Your task to perform on an android device: Open calendar and show me the fourth week of next month Image 0: 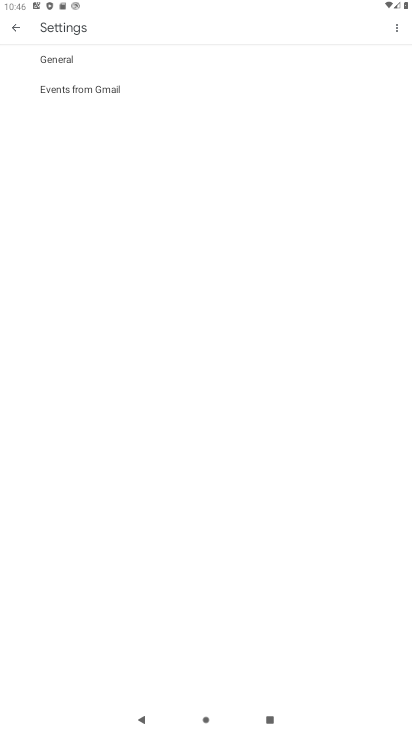
Step 0: press home button
Your task to perform on an android device: Open calendar and show me the fourth week of next month Image 1: 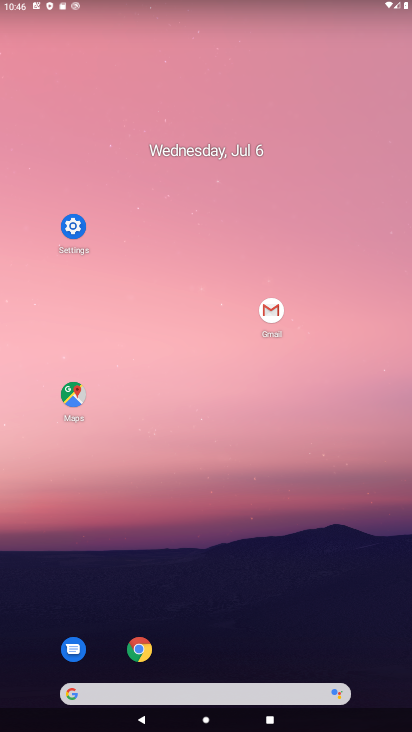
Step 1: drag from (285, 601) to (297, 48)
Your task to perform on an android device: Open calendar and show me the fourth week of next month Image 2: 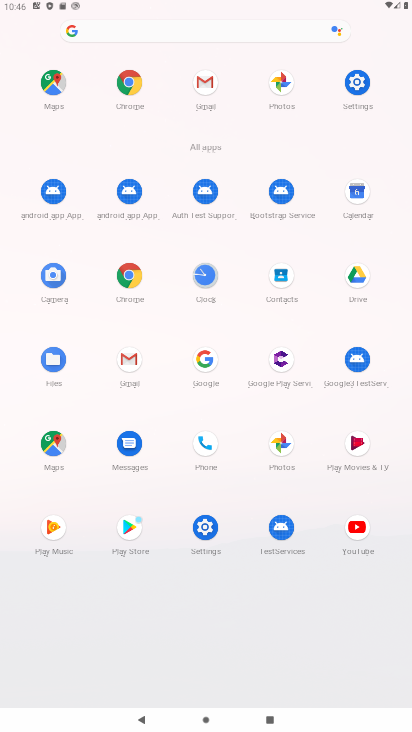
Step 2: drag from (361, 192) to (110, 270)
Your task to perform on an android device: Open calendar and show me the fourth week of next month Image 3: 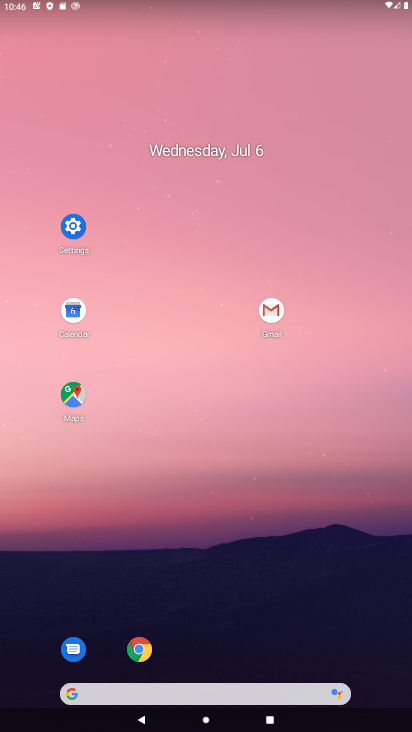
Step 3: click (76, 309)
Your task to perform on an android device: Open calendar and show me the fourth week of next month Image 4: 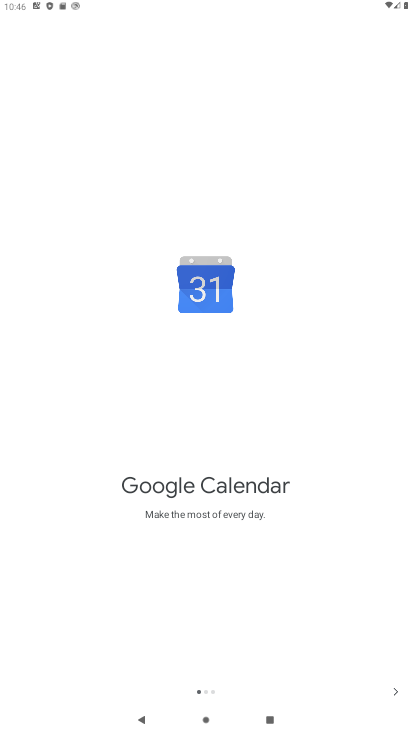
Step 4: click (389, 689)
Your task to perform on an android device: Open calendar and show me the fourth week of next month Image 5: 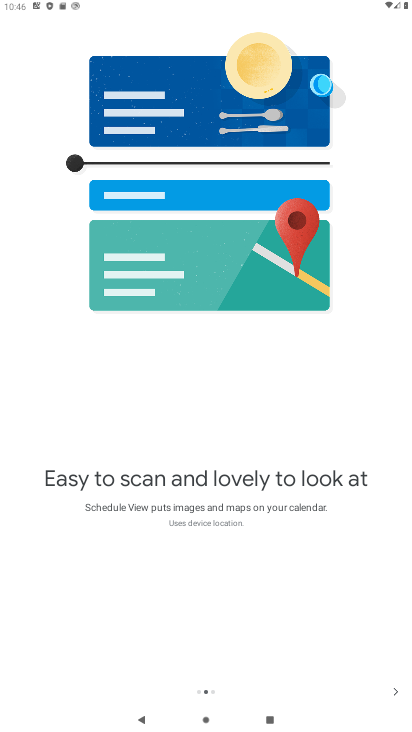
Step 5: click (389, 689)
Your task to perform on an android device: Open calendar and show me the fourth week of next month Image 6: 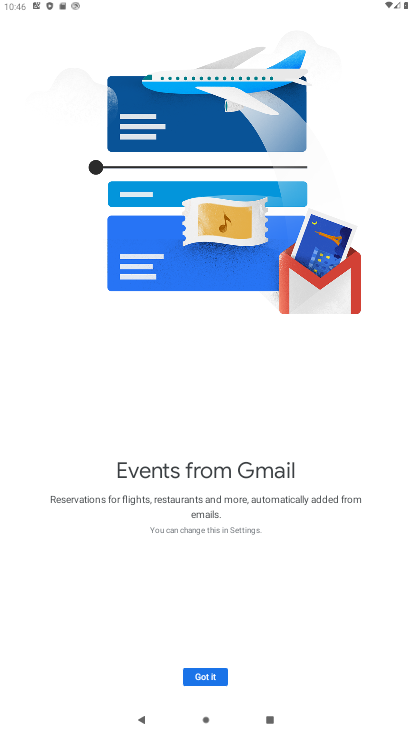
Step 6: click (226, 671)
Your task to perform on an android device: Open calendar and show me the fourth week of next month Image 7: 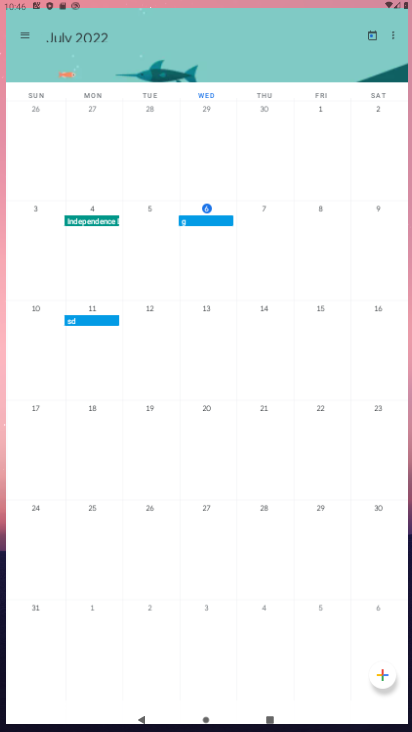
Step 7: click (212, 676)
Your task to perform on an android device: Open calendar and show me the fourth week of next month Image 8: 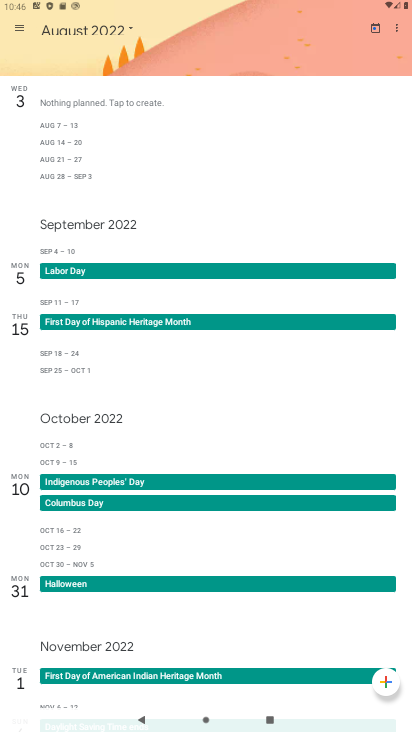
Step 8: drag from (192, 525) to (187, 98)
Your task to perform on an android device: Open calendar and show me the fourth week of next month Image 9: 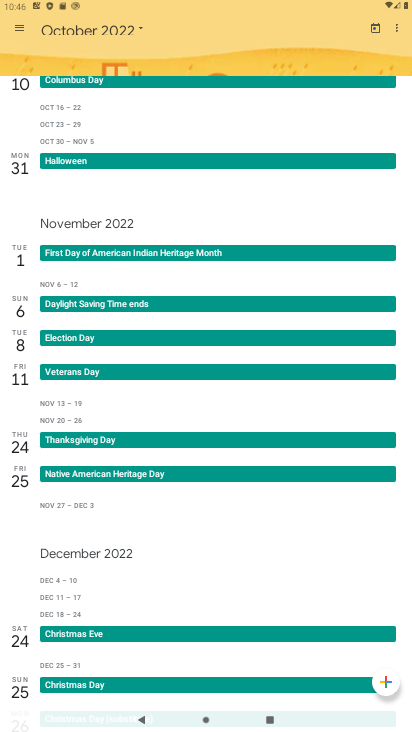
Step 9: drag from (187, 95) to (233, 612)
Your task to perform on an android device: Open calendar and show me the fourth week of next month Image 10: 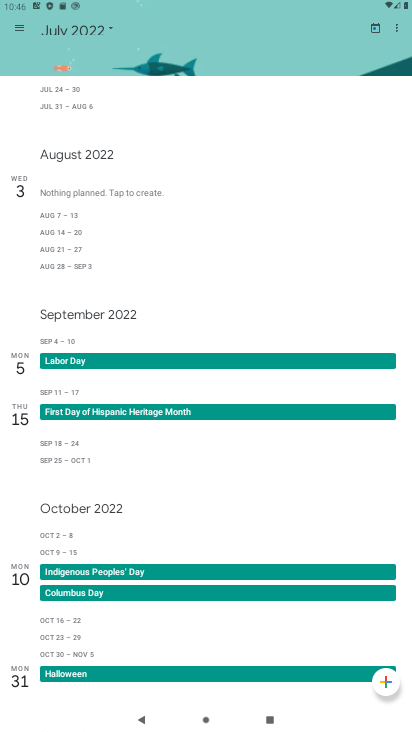
Step 10: drag from (129, 395) to (141, 87)
Your task to perform on an android device: Open calendar and show me the fourth week of next month Image 11: 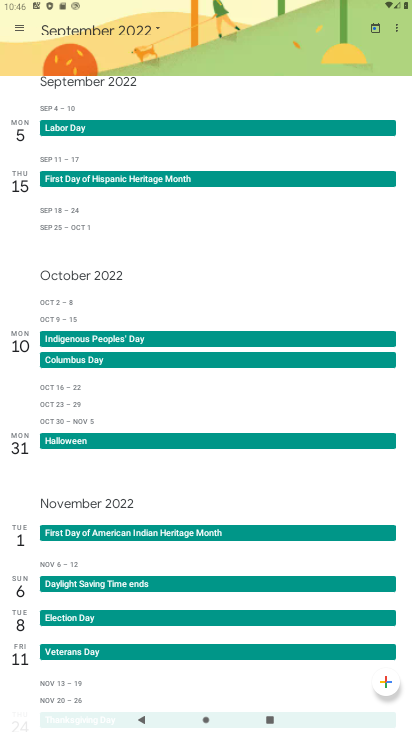
Step 11: drag from (76, 142) to (105, 354)
Your task to perform on an android device: Open calendar and show me the fourth week of next month Image 12: 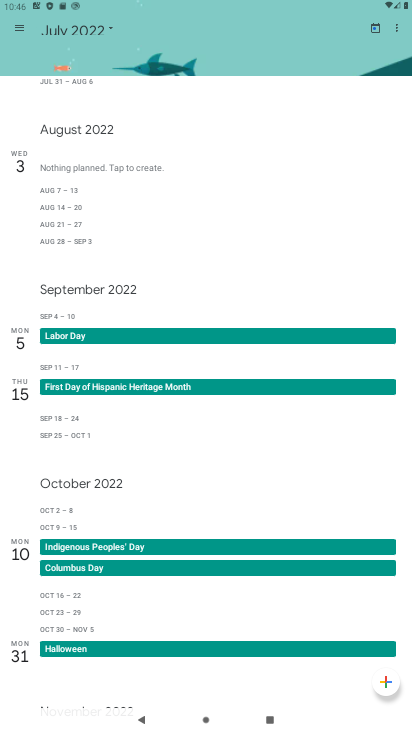
Step 12: drag from (94, 250) to (84, 190)
Your task to perform on an android device: Open calendar and show me the fourth week of next month Image 13: 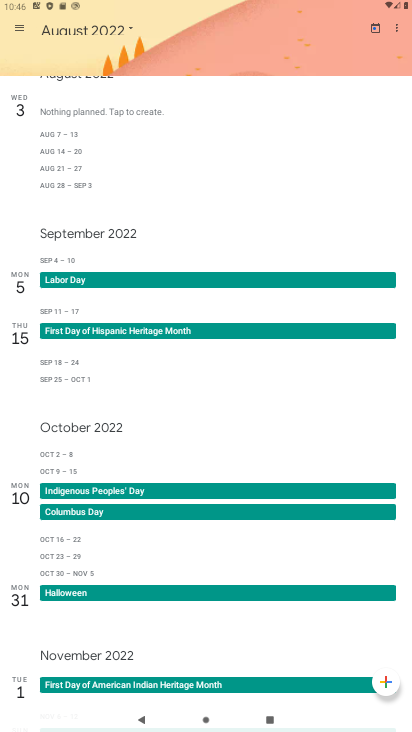
Step 13: click (87, 186)
Your task to perform on an android device: Open calendar and show me the fourth week of next month Image 14: 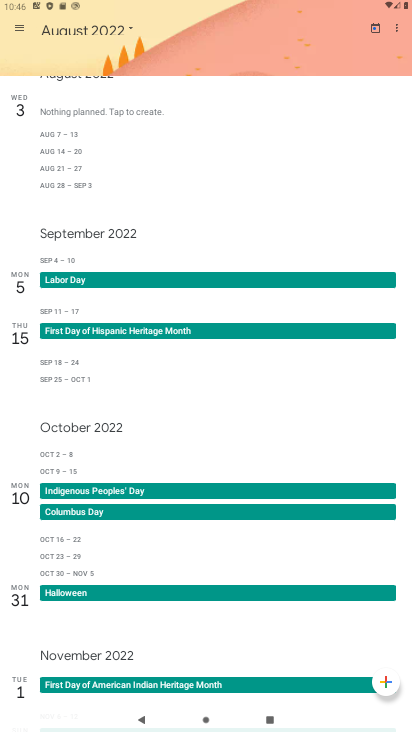
Step 14: click (80, 184)
Your task to perform on an android device: Open calendar and show me the fourth week of next month Image 15: 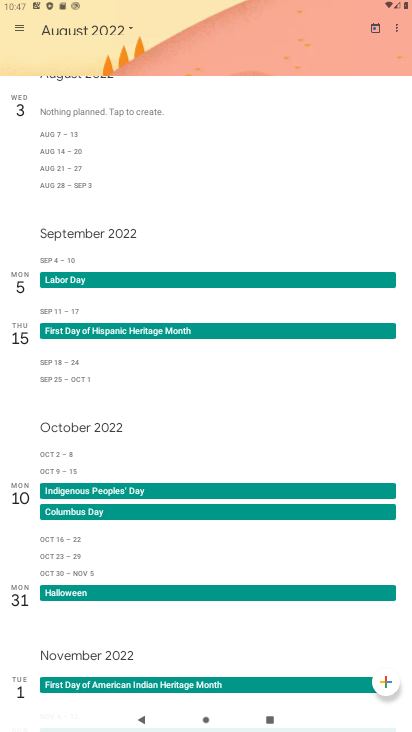
Step 15: click (20, 24)
Your task to perform on an android device: Open calendar and show me the fourth week of next month Image 16: 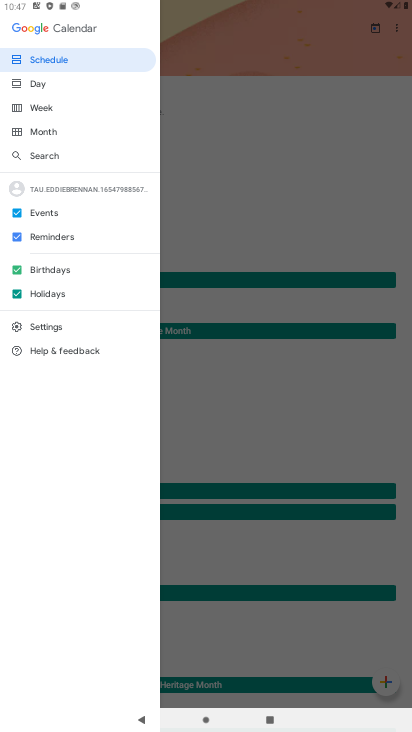
Step 16: click (57, 110)
Your task to perform on an android device: Open calendar and show me the fourth week of next month Image 17: 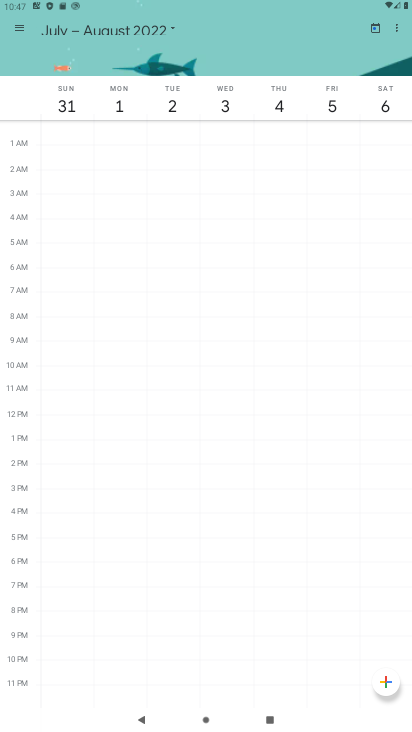
Step 17: click (166, 28)
Your task to perform on an android device: Open calendar and show me the fourth week of next month Image 18: 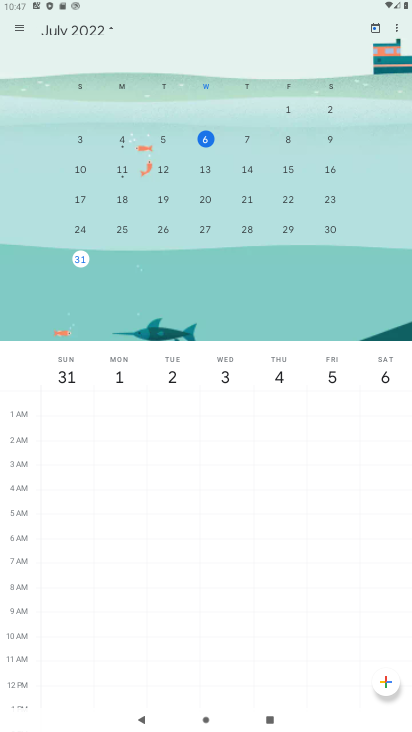
Step 18: drag from (352, 186) to (2, 184)
Your task to perform on an android device: Open calendar and show me the fourth week of next month Image 19: 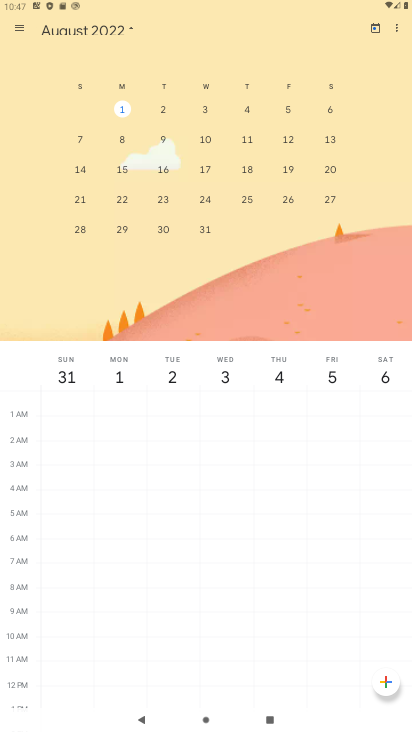
Step 19: click (131, 196)
Your task to perform on an android device: Open calendar and show me the fourth week of next month Image 20: 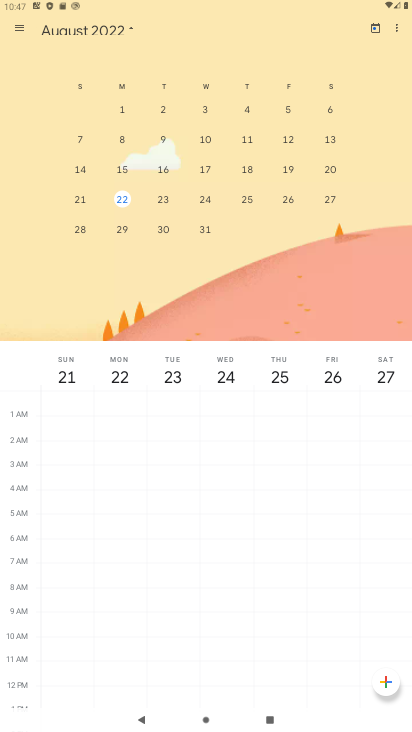
Step 20: task complete